Your task to perform on an android device: change notifications settings Image 0: 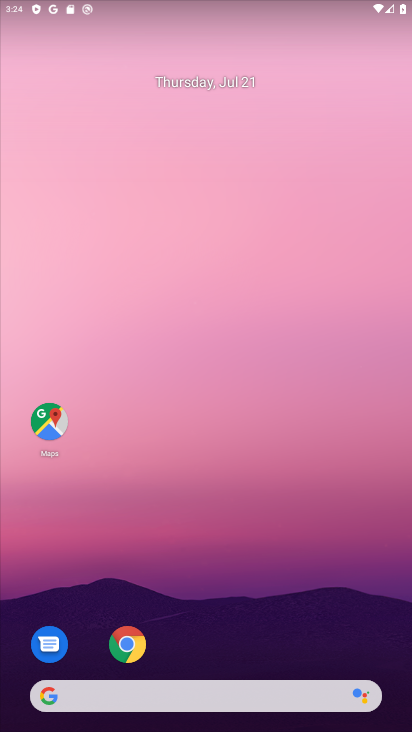
Step 0: drag from (67, 493) to (237, 166)
Your task to perform on an android device: change notifications settings Image 1: 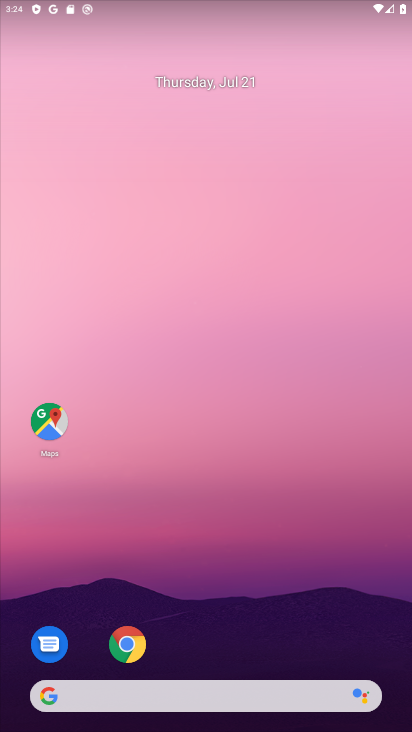
Step 1: drag from (45, 580) to (241, 154)
Your task to perform on an android device: change notifications settings Image 2: 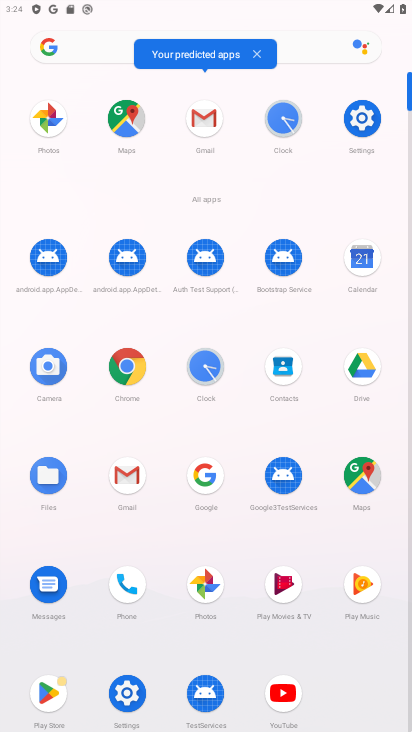
Step 2: click (375, 120)
Your task to perform on an android device: change notifications settings Image 3: 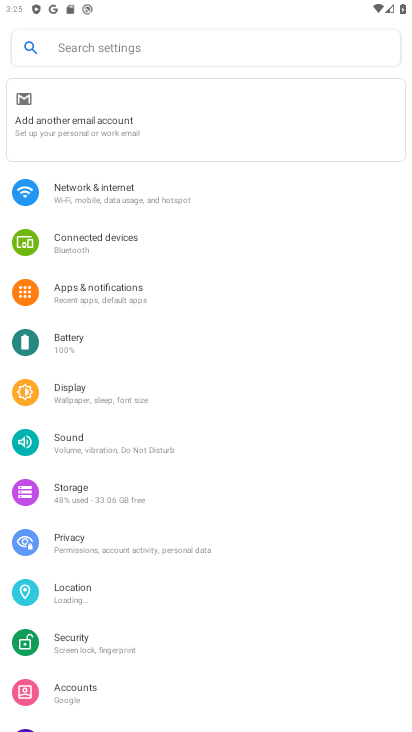
Step 3: click (94, 285)
Your task to perform on an android device: change notifications settings Image 4: 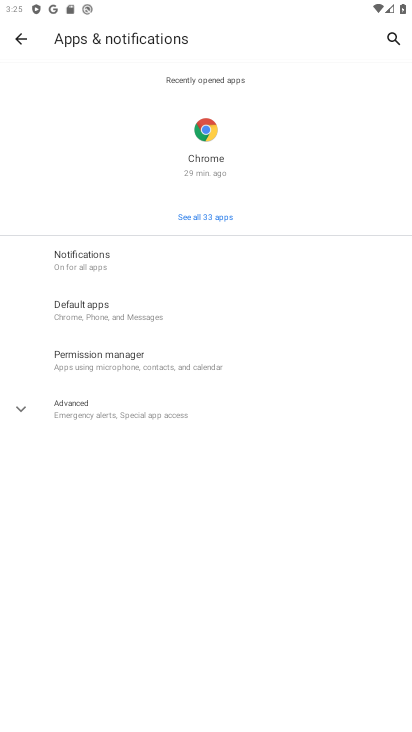
Step 4: click (116, 276)
Your task to perform on an android device: change notifications settings Image 5: 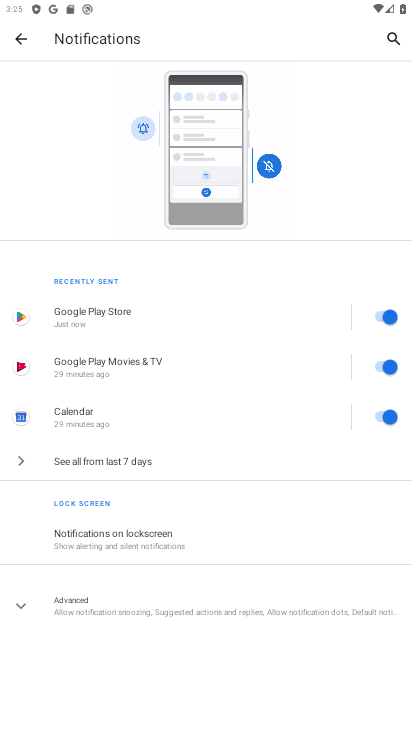
Step 5: task complete